Your task to perform on an android device: Search for "logitech g502" on bestbuy, select the first entry, and add it to the cart. Image 0: 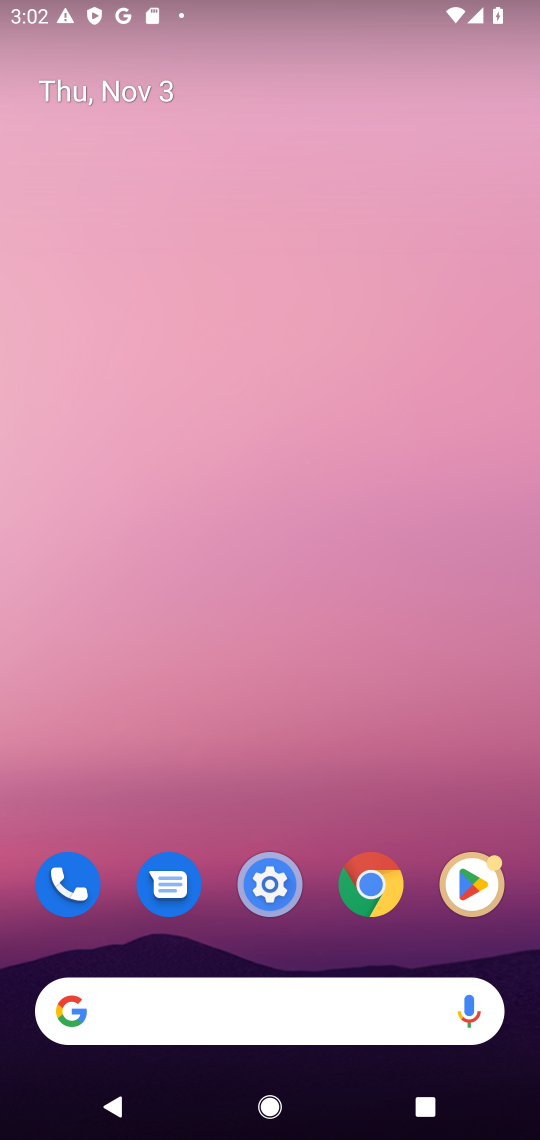
Step 0: click (100, 1016)
Your task to perform on an android device: Search for "logitech g502" on bestbuy, select the first entry, and add it to the cart. Image 1: 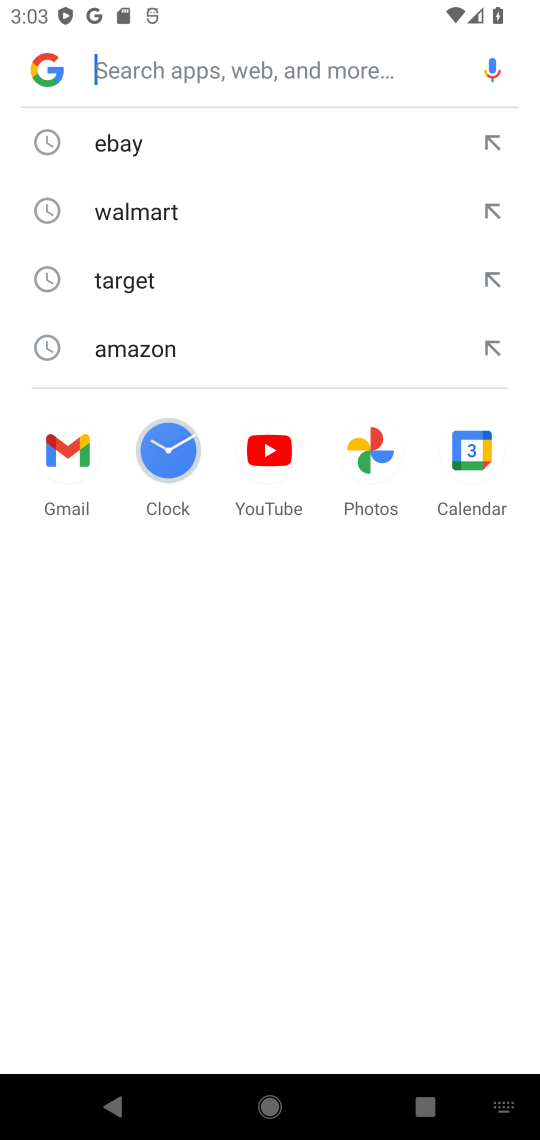
Step 1: type "bestbuy"
Your task to perform on an android device: Search for "logitech g502" on bestbuy, select the first entry, and add it to the cart. Image 2: 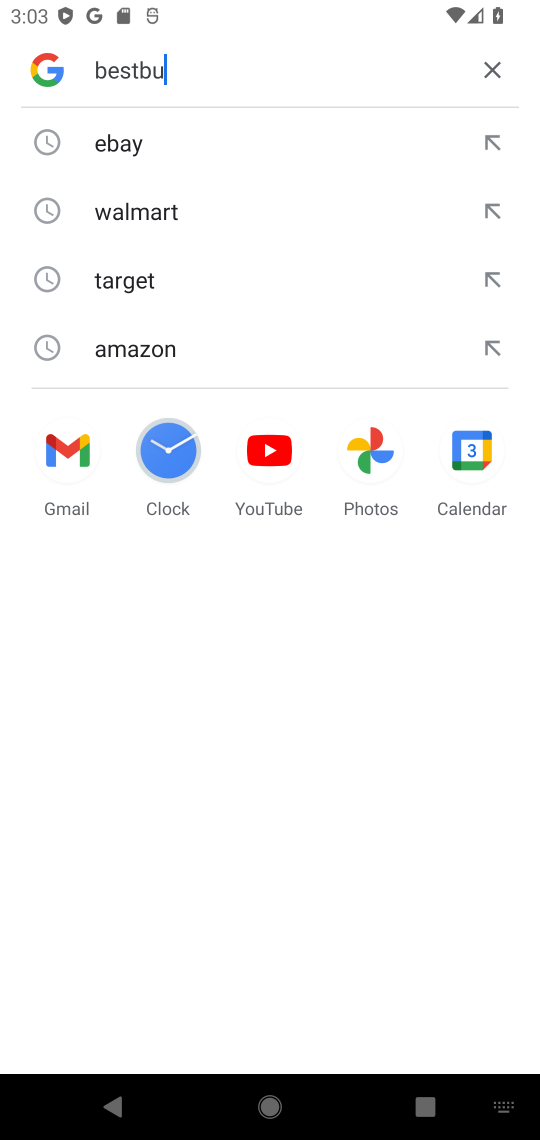
Step 2: press enter
Your task to perform on an android device: Search for "logitech g502" on bestbuy, select the first entry, and add it to the cart. Image 3: 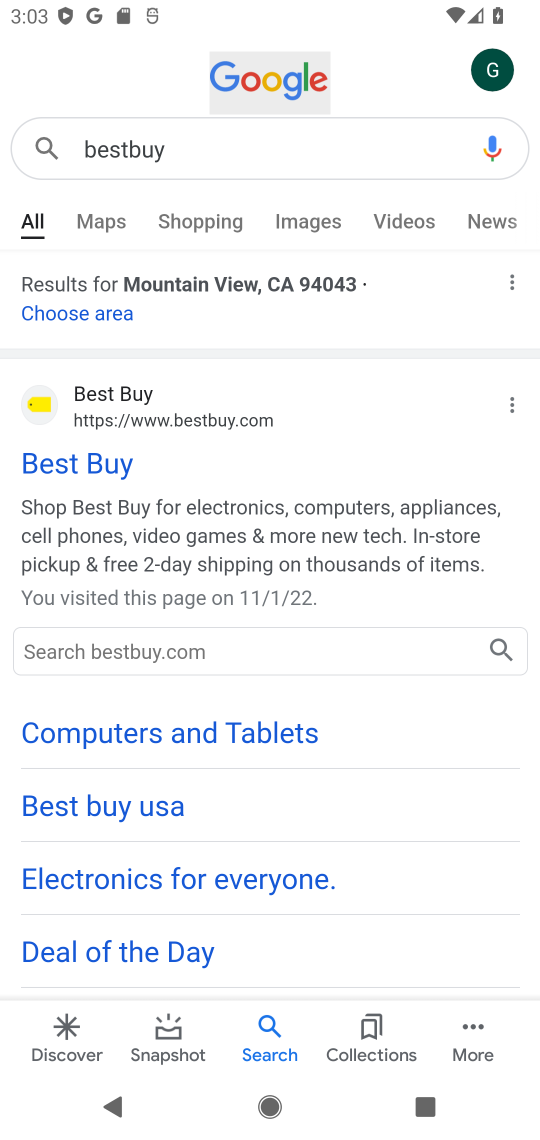
Step 3: click (79, 457)
Your task to perform on an android device: Search for "logitech g502" on bestbuy, select the first entry, and add it to the cart. Image 4: 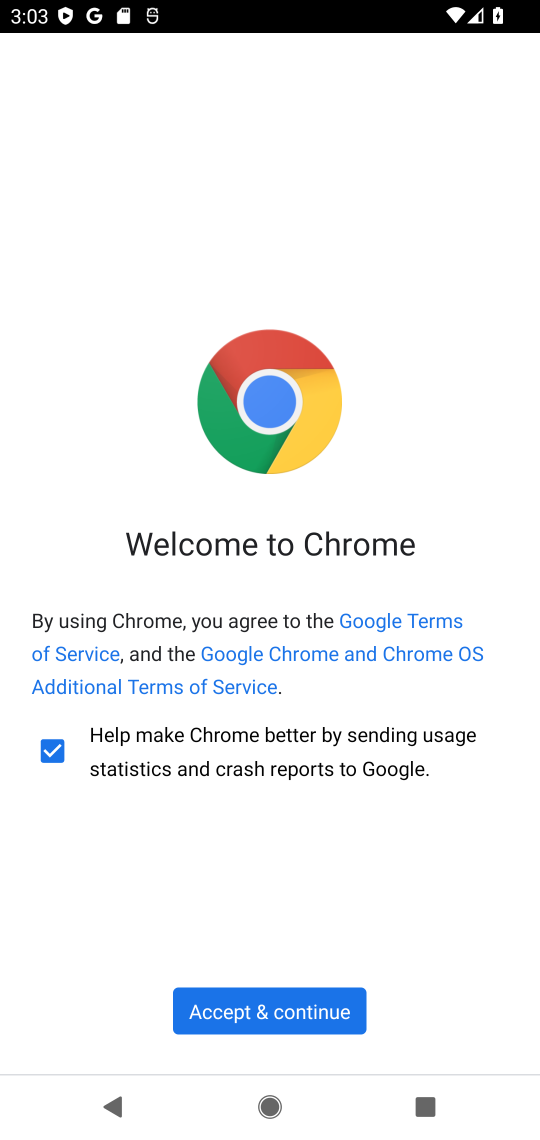
Step 4: click (308, 1015)
Your task to perform on an android device: Search for "logitech g502" on bestbuy, select the first entry, and add it to the cart. Image 5: 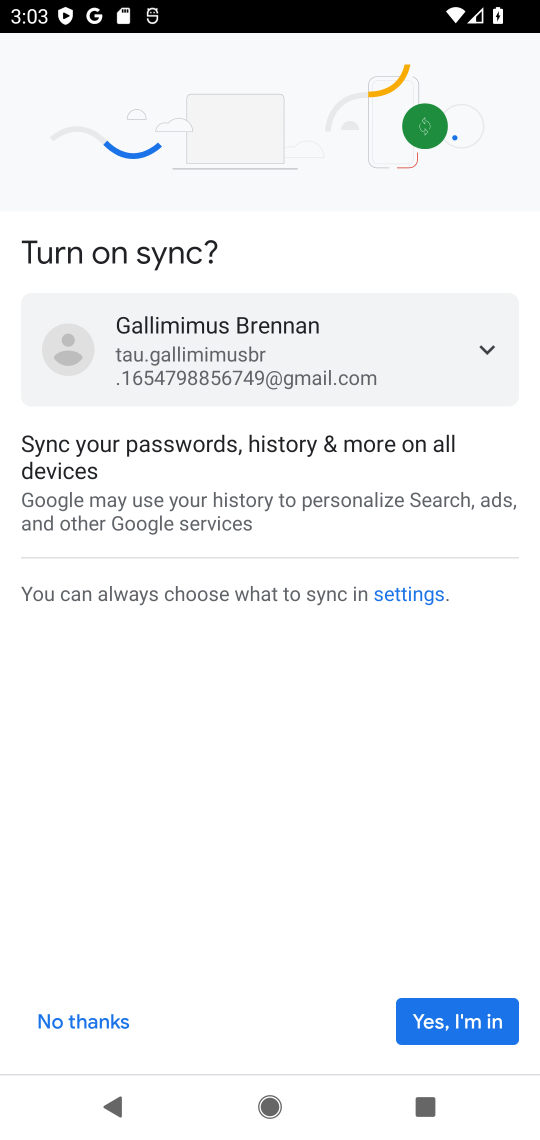
Step 5: click (472, 1037)
Your task to perform on an android device: Search for "logitech g502" on bestbuy, select the first entry, and add it to the cart. Image 6: 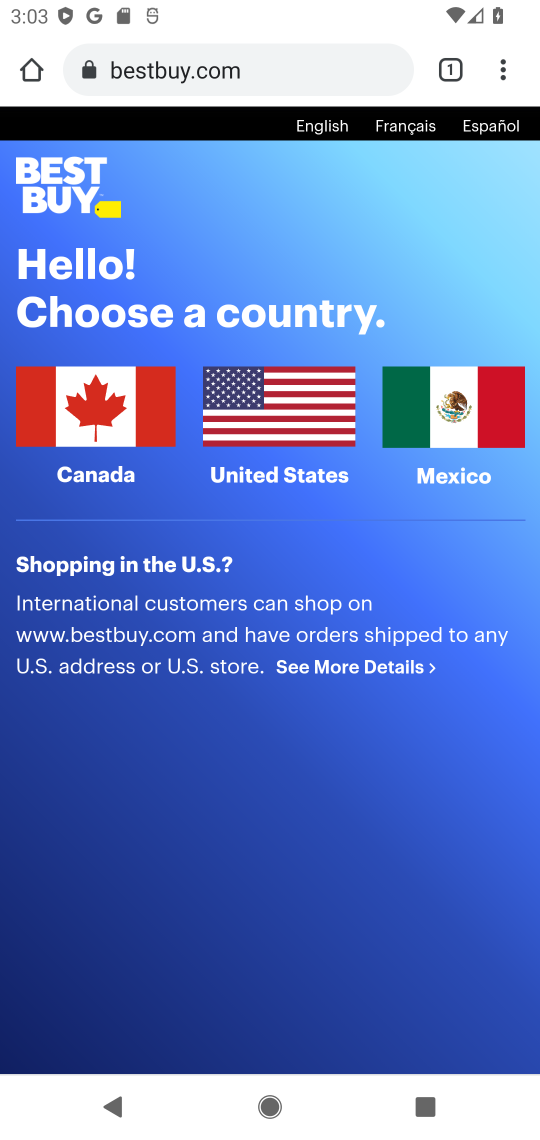
Step 6: click (95, 410)
Your task to perform on an android device: Search for "logitech g502" on bestbuy, select the first entry, and add it to the cart. Image 7: 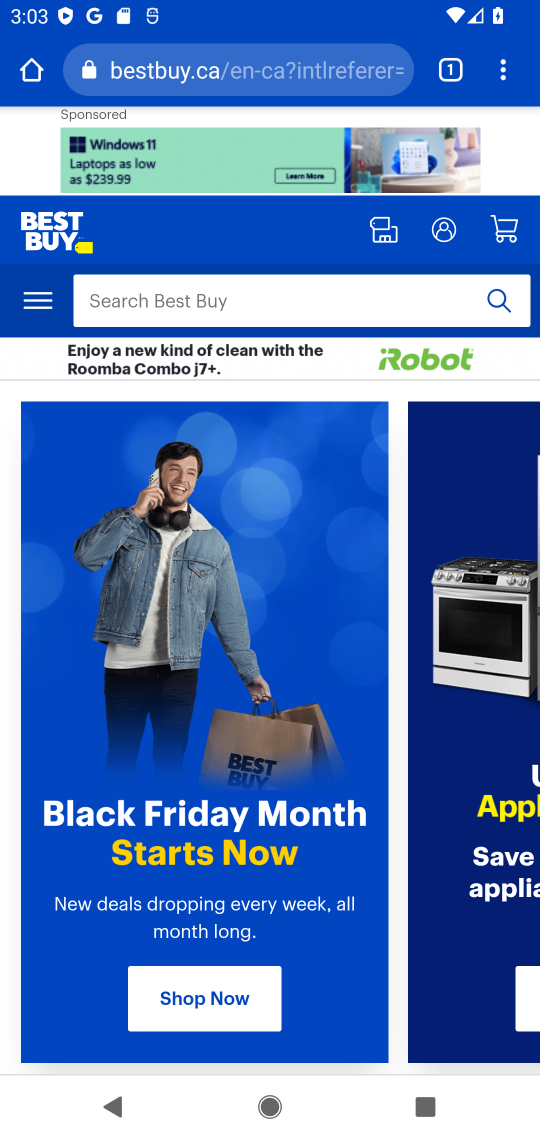
Step 7: click (206, 303)
Your task to perform on an android device: Search for "logitech g502" on bestbuy, select the first entry, and add it to the cart. Image 8: 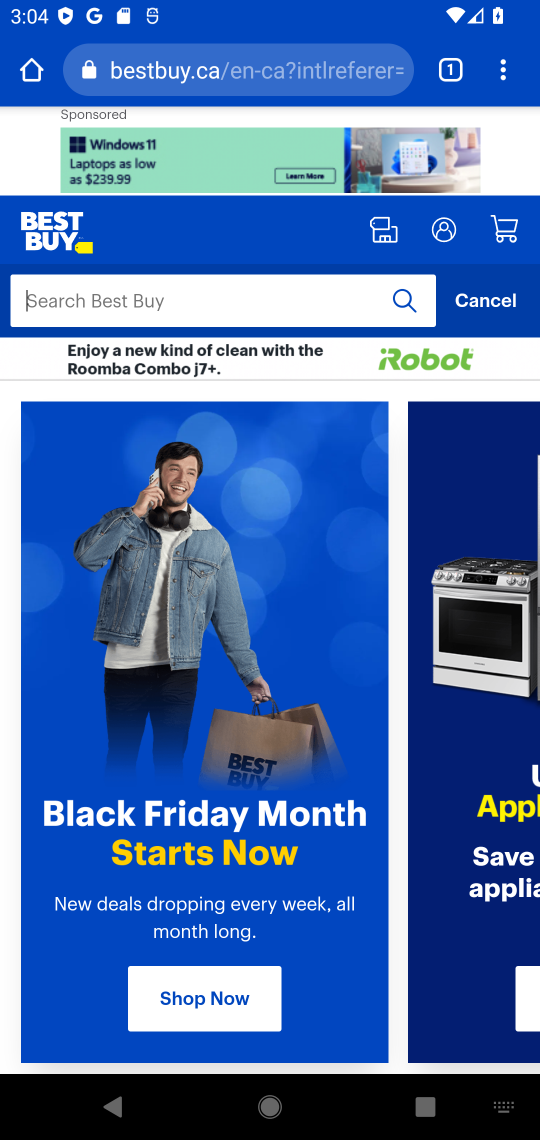
Step 8: type "logitech g502"
Your task to perform on an android device: Search for "logitech g502" on bestbuy, select the first entry, and add it to the cart. Image 9: 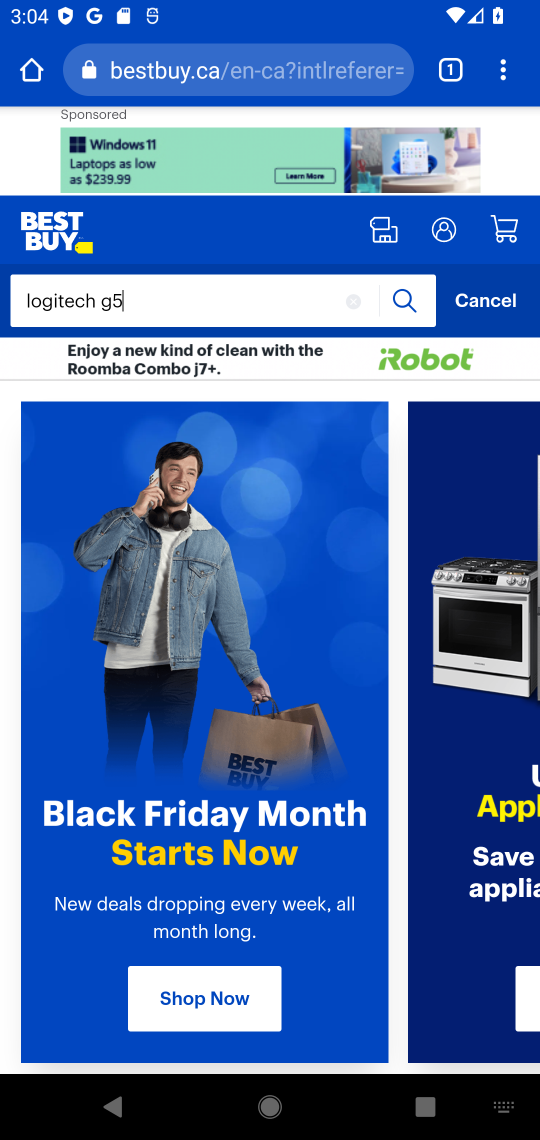
Step 9: press enter
Your task to perform on an android device: Search for "logitech g502" on bestbuy, select the first entry, and add it to the cart. Image 10: 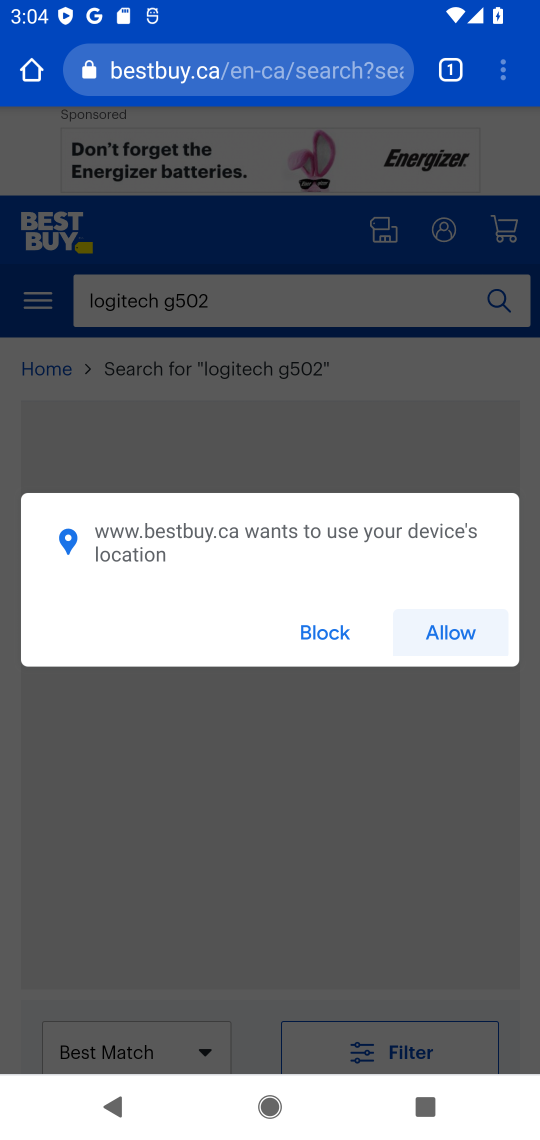
Step 10: click (321, 627)
Your task to perform on an android device: Search for "logitech g502" on bestbuy, select the first entry, and add it to the cart. Image 11: 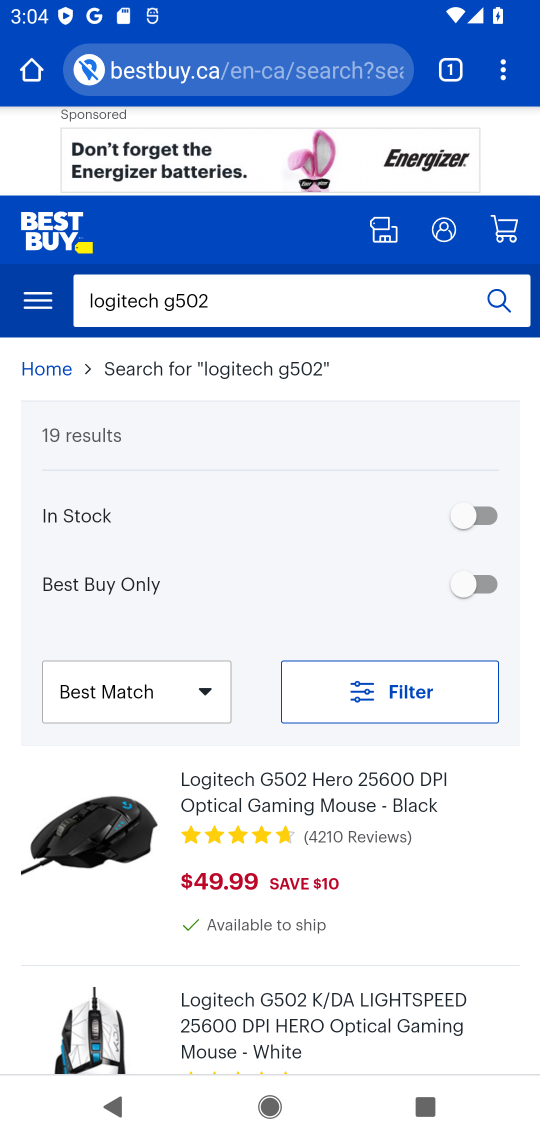
Step 11: click (243, 781)
Your task to perform on an android device: Search for "logitech g502" on bestbuy, select the first entry, and add it to the cart. Image 12: 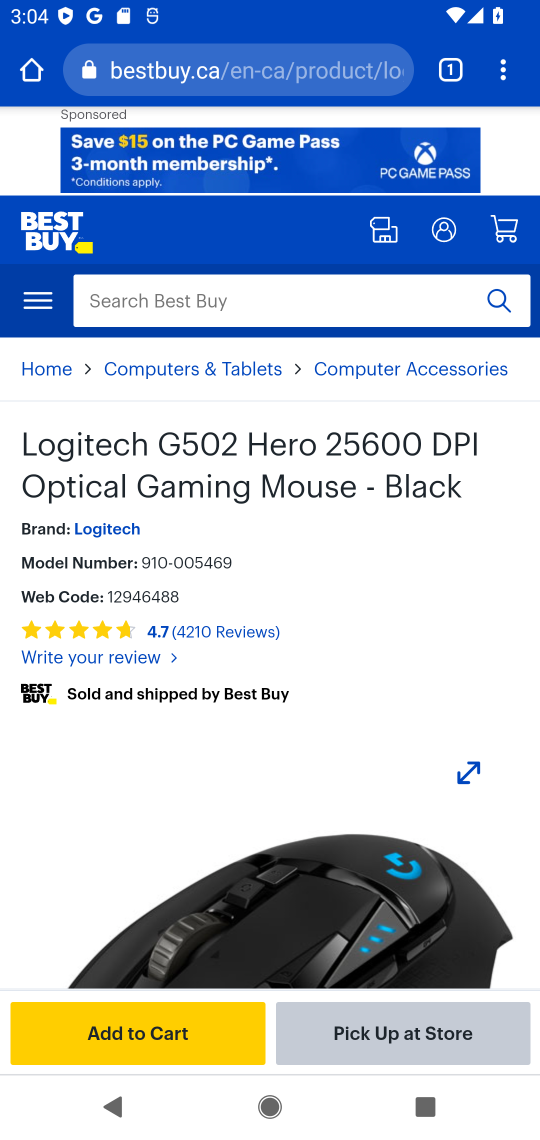
Step 12: drag from (284, 868) to (285, 599)
Your task to perform on an android device: Search for "logitech g502" on bestbuy, select the first entry, and add it to the cart. Image 13: 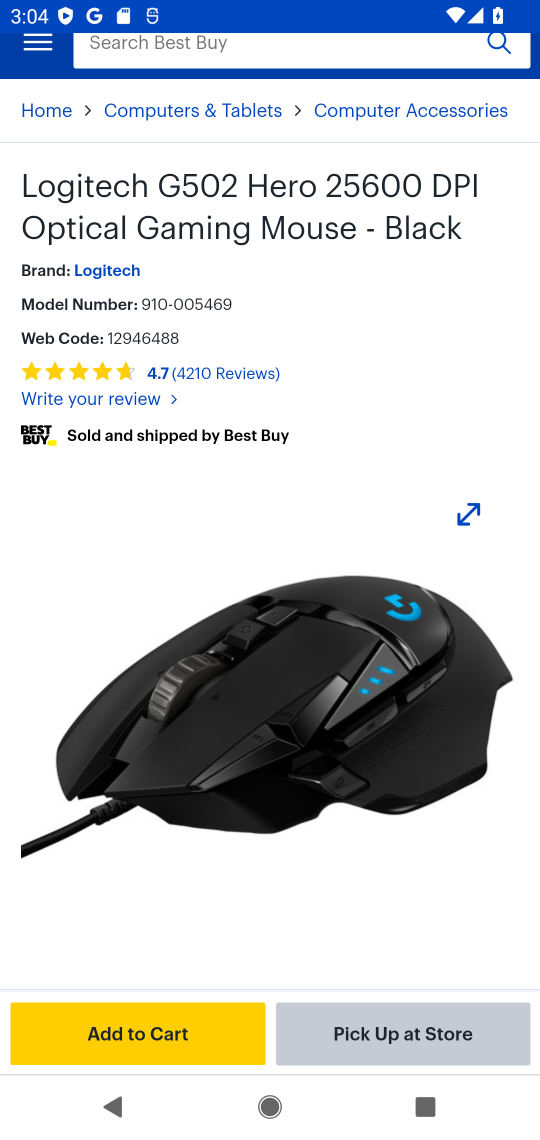
Step 13: click (125, 1042)
Your task to perform on an android device: Search for "logitech g502" on bestbuy, select the first entry, and add it to the cart. Image 14: 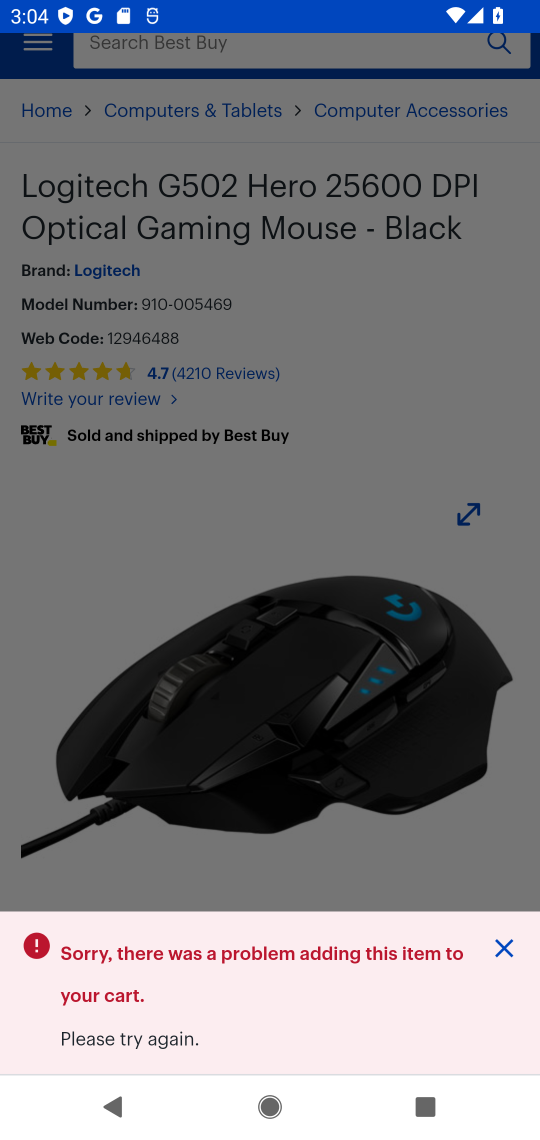
Step 14: click (497, 950)
Your task to perform on an android device: Search for "logitech g502" on bestbuy, select the first entry, and add it to the cart. Image 15: 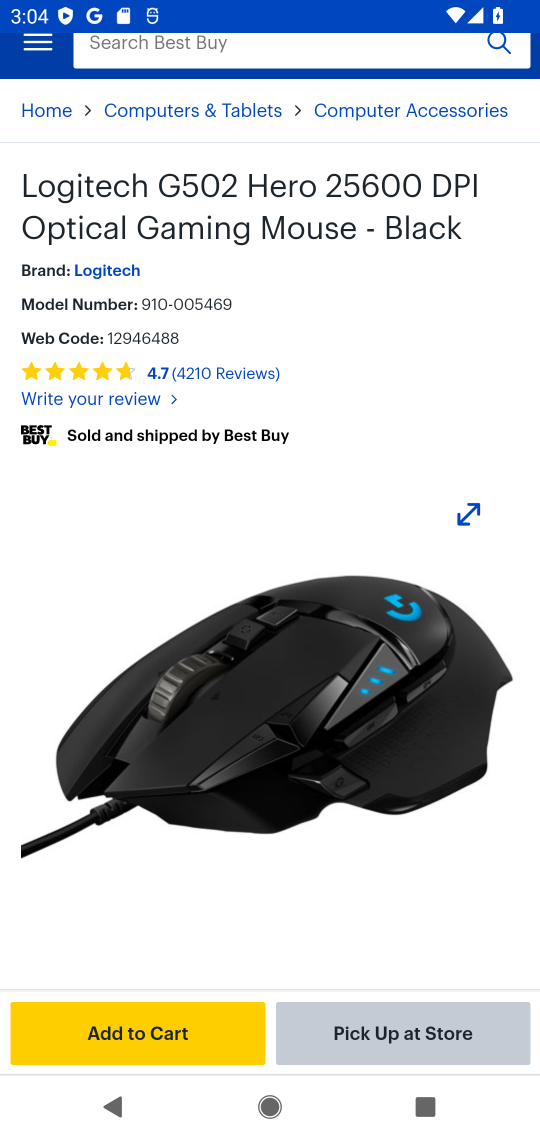
Step 15: click (117, 1040)
Your task to perform on an android device: Search for "logitech g502" on bestbuy, select the first entry, and add it to the cart. Image 16: 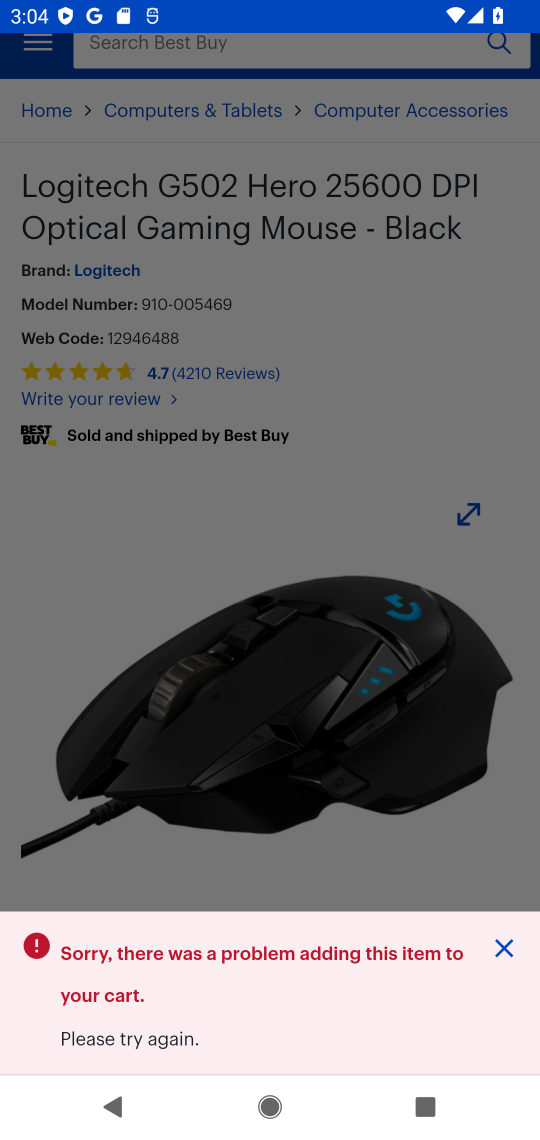
Step 16: task complete